Your task to perform on an android device: allow notifications from all sites in the chrome app Image 0: 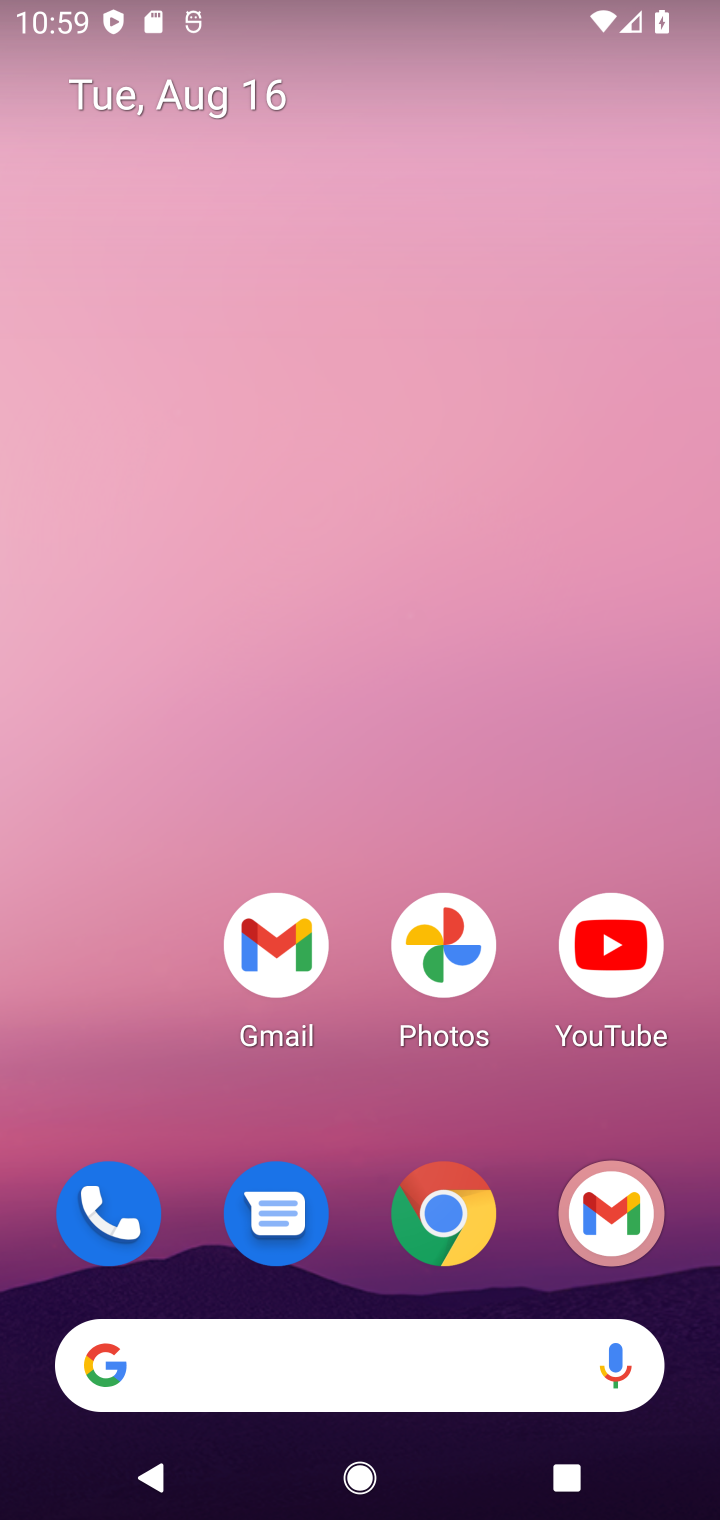
Step 0: drag from (343, 791) to (267, 0)
Your task to perform on an android device: allow notifications from all sites in the chrome app Image 1: 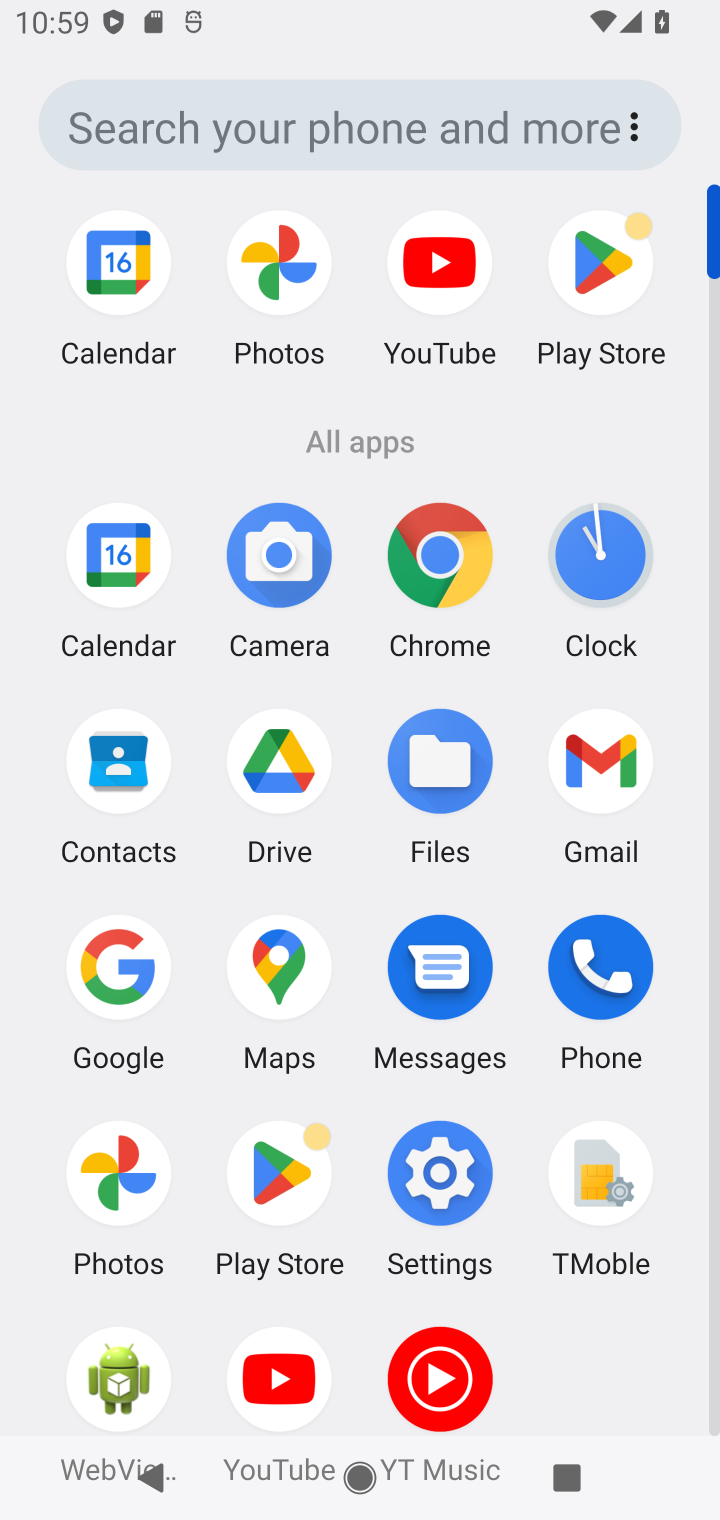
Step 1: click (446, 543)
Your task to perform on an android device: allow notifications from all sites in the chrome app Image 2: 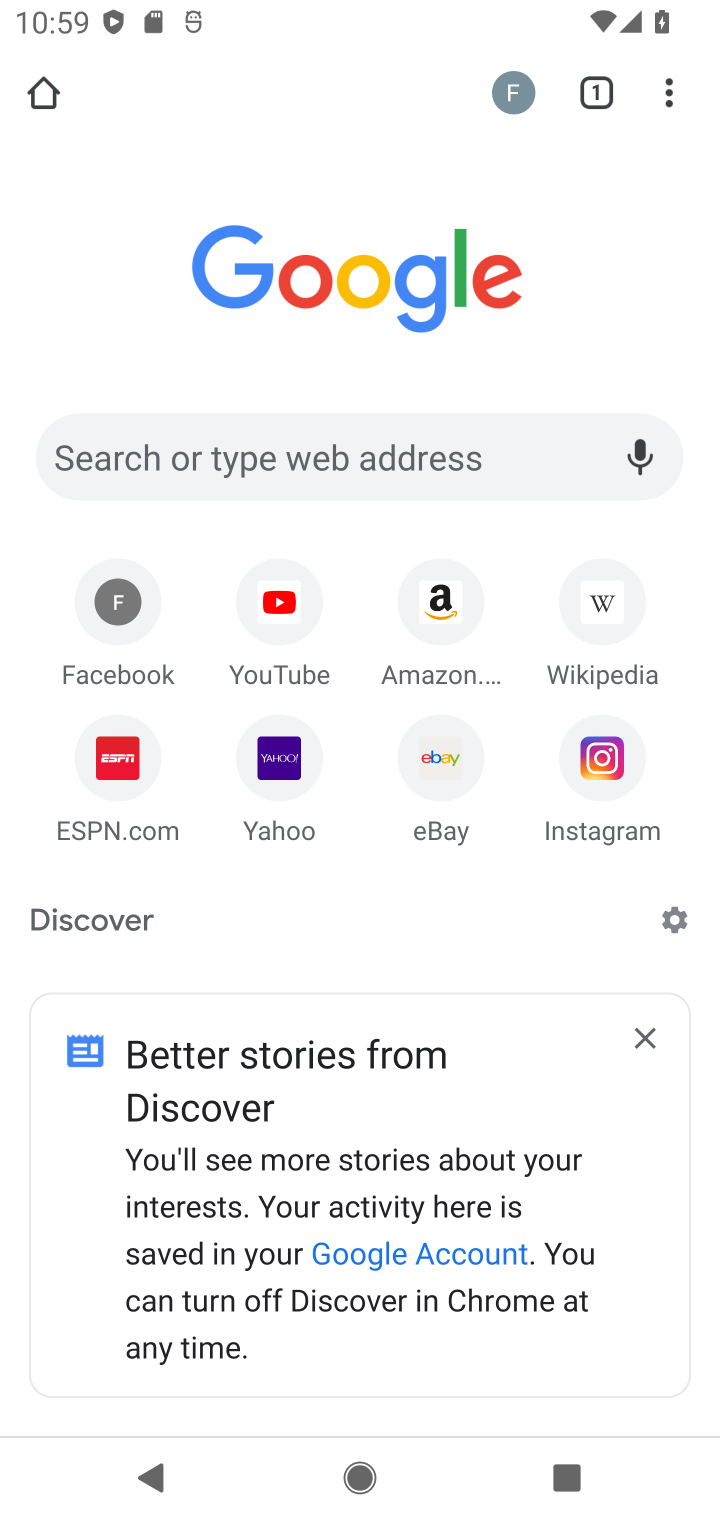
Step 2: drag from (659, 86) to (398, 842)
Your task to perform on an android device: allow notifications from all sites in the chrome app Image 3: 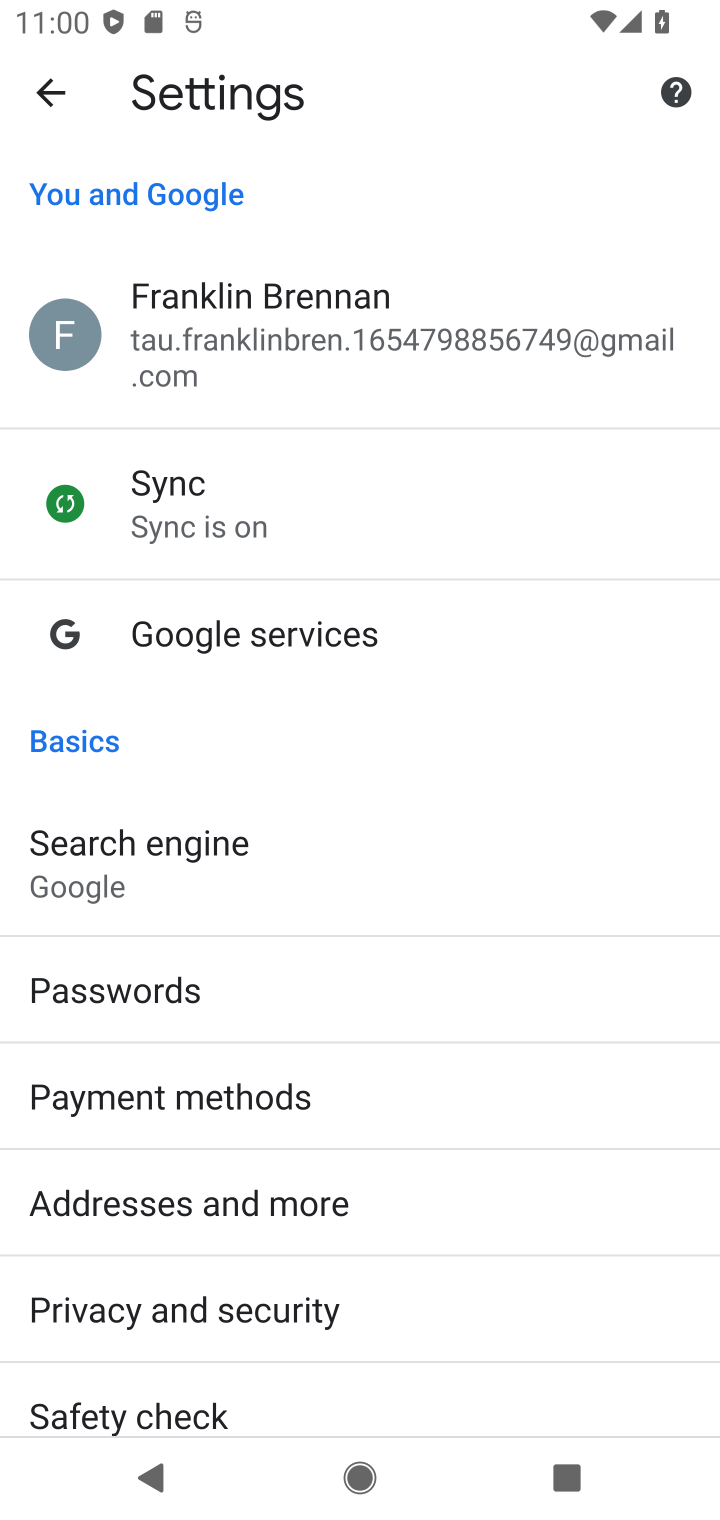
Step 3: drag from (386, 1232) to (427, 305)
Your task to perform on an android device: allow notifications from all sites in the chrome app Image 4: 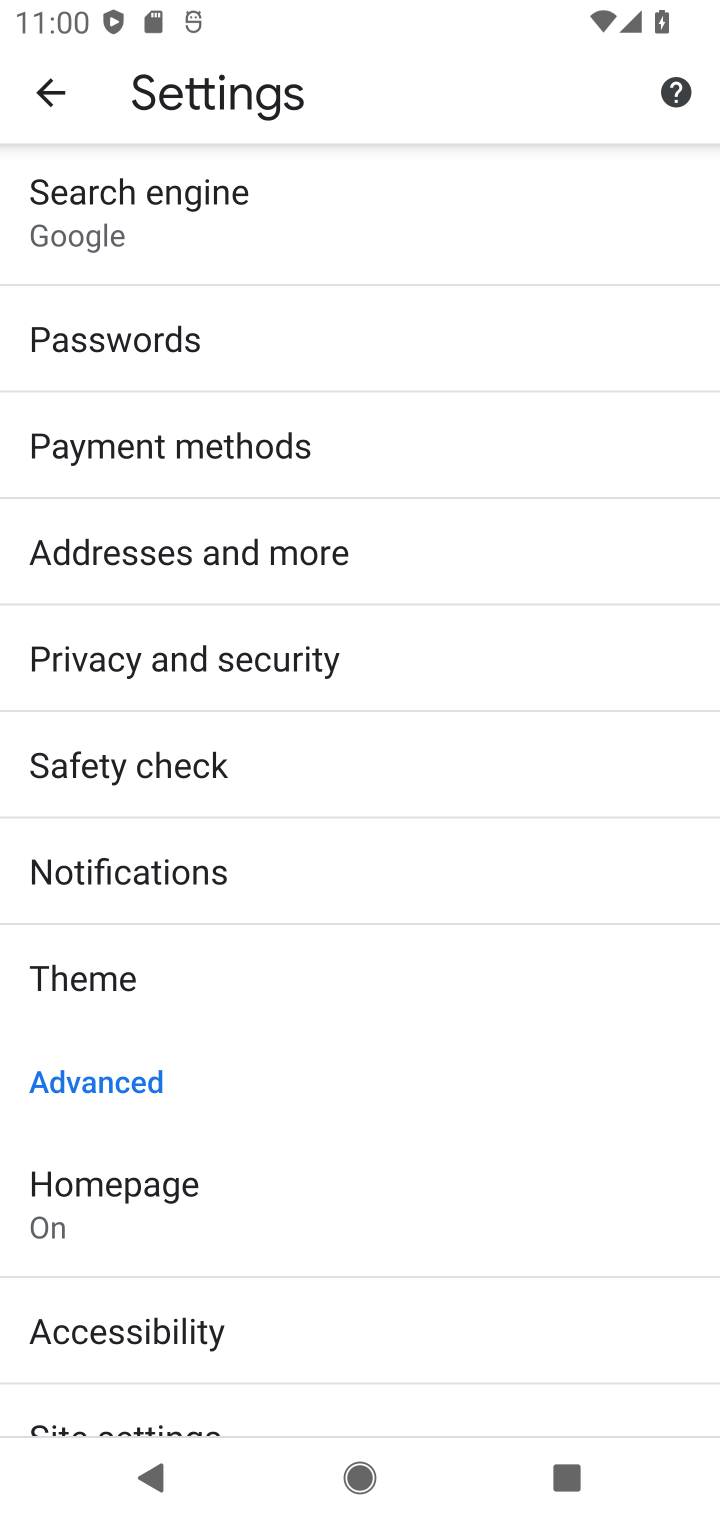
Step 4: drag from (380, 731) to (516, 357)
Your task to perform on an android device: allow notifications from all sites in the chrome app Image 5: 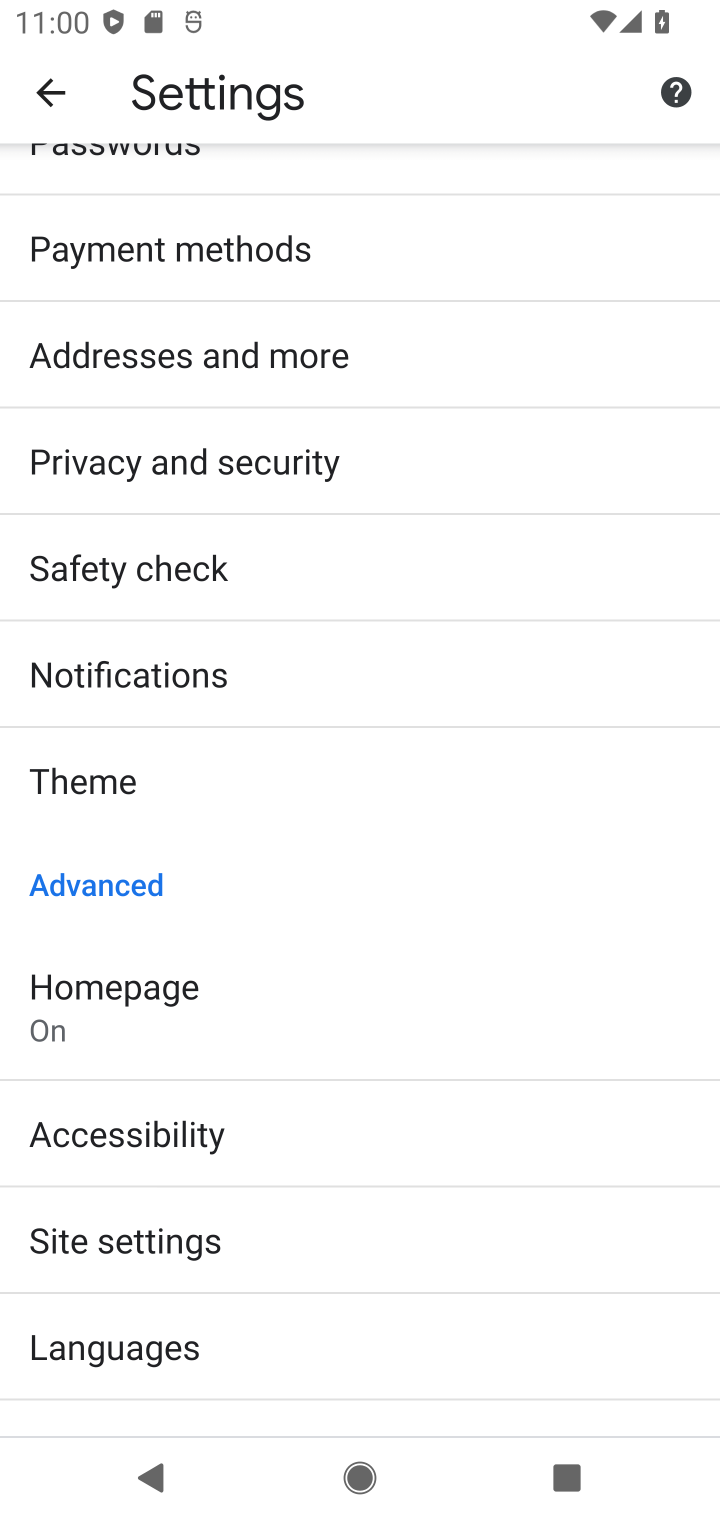
Step 5: click (190, 1242)
Your task to perform on an android device: allow notifications from all sites in the chrome app Image 6: 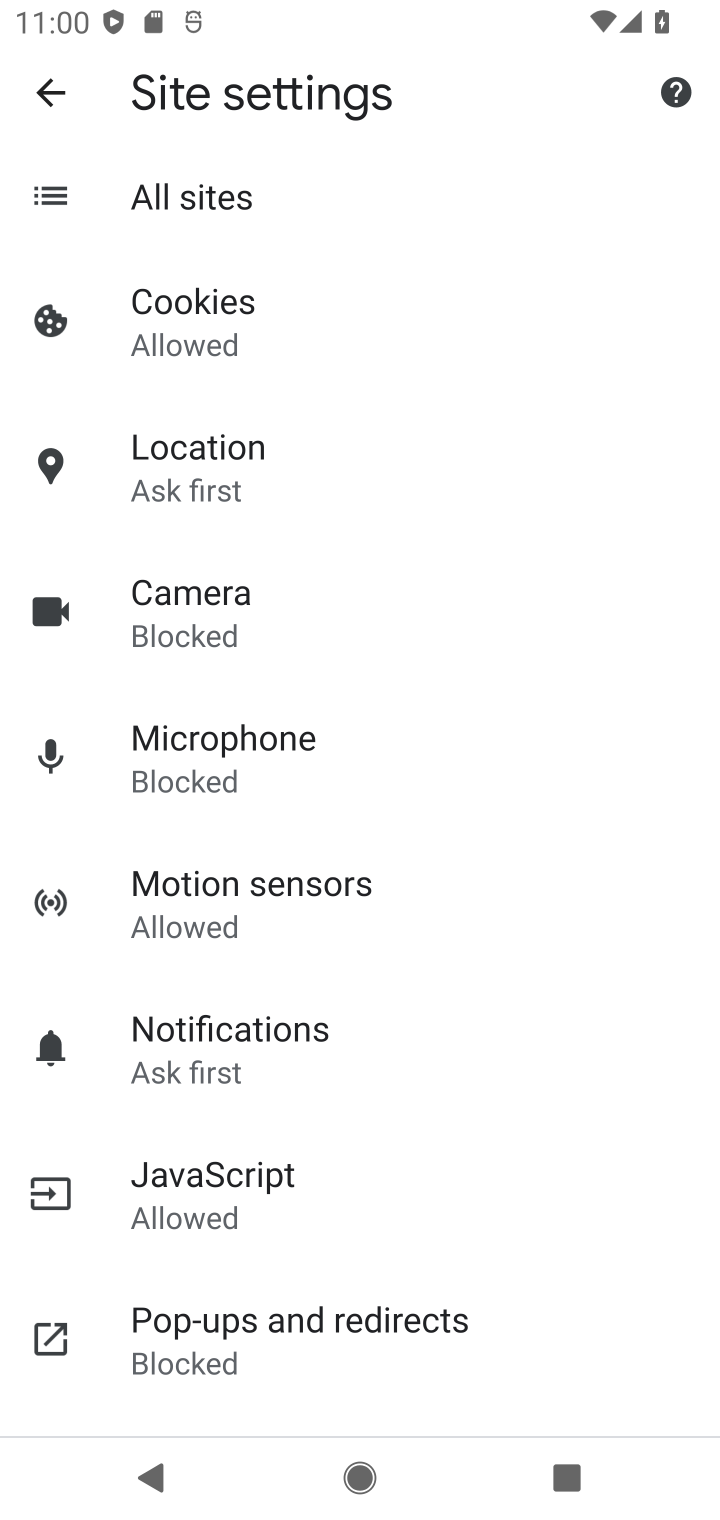
Step 6: click (186, 297)
Your task to perform on an android device: allow notifications from all sites in the chrome app Image 7: 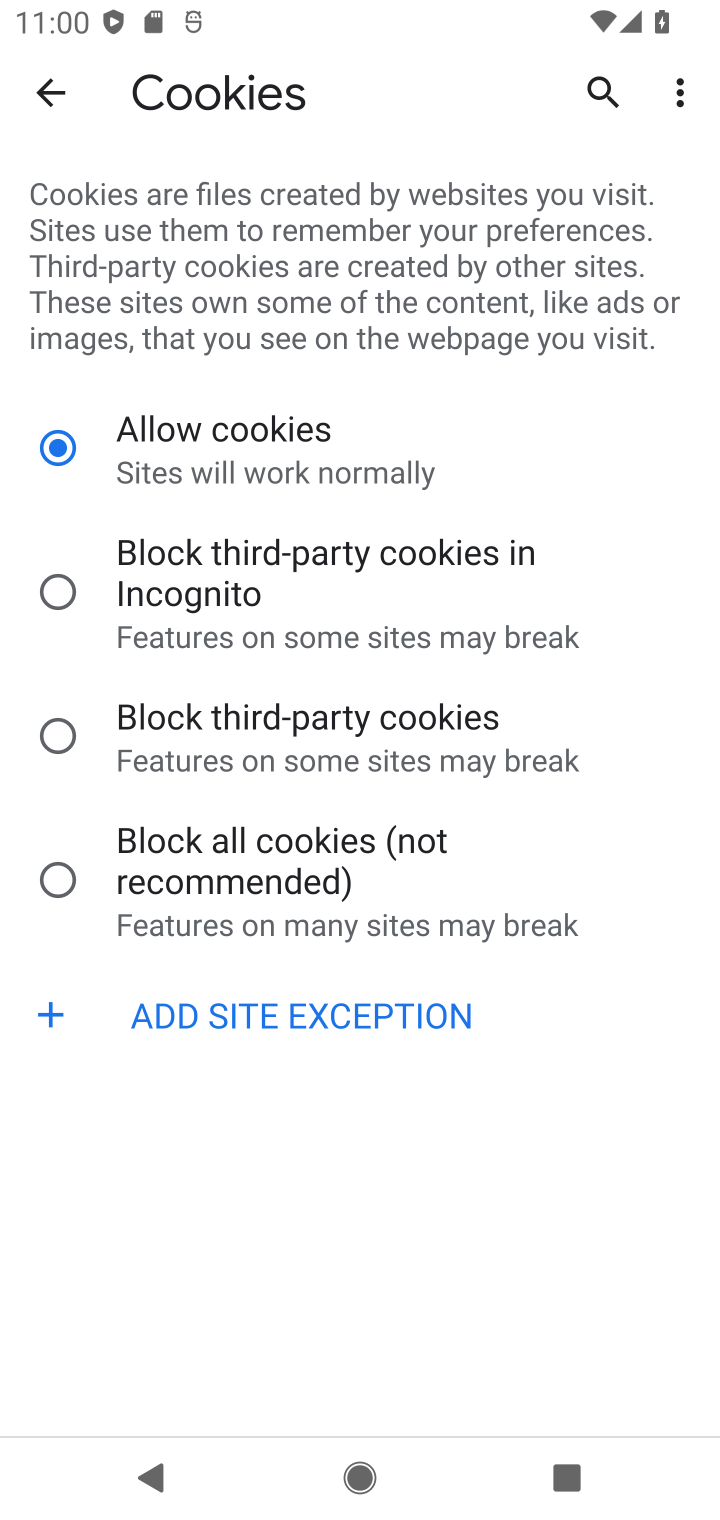
Step 7: click (27, 61)
Your task to perform on an android device: allow notifications from all sites in the chrome app Image 8: 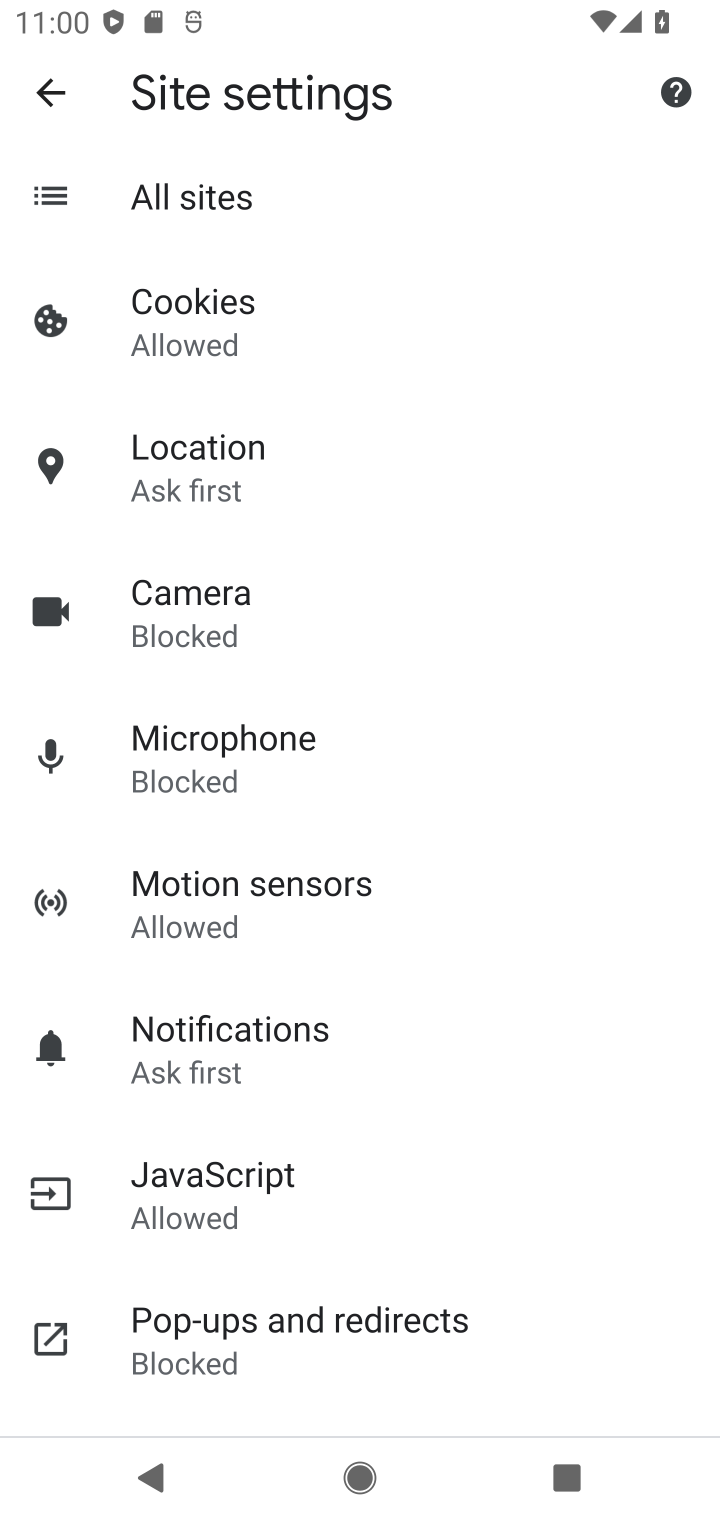
Step 8: click (240, 1065)
Your task to perform on an android device: allow notifications from all sites in the chrome app Image 9: 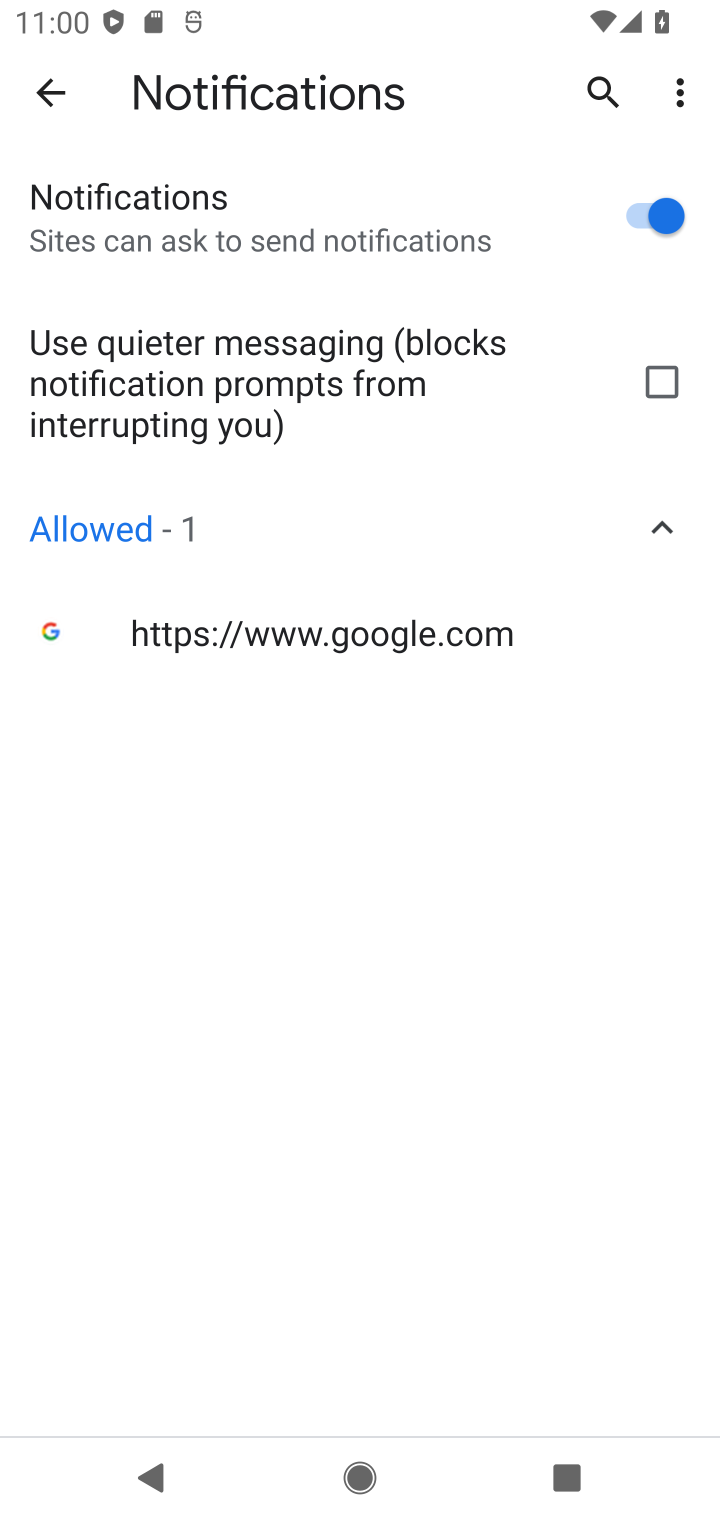
Step 9: task complete